Your task to perform on an android device: add a contact in the contacts app Image 0: 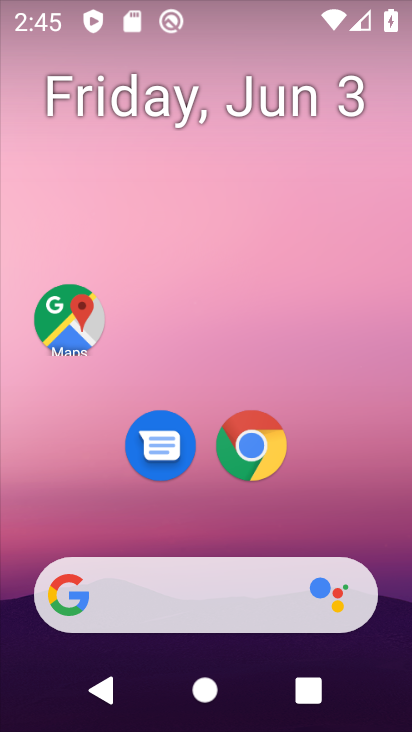
Step 0: drag from (133, 515) to (245, 100)
Your task to perform on an android device: add a contact in the contacts app Image 1: 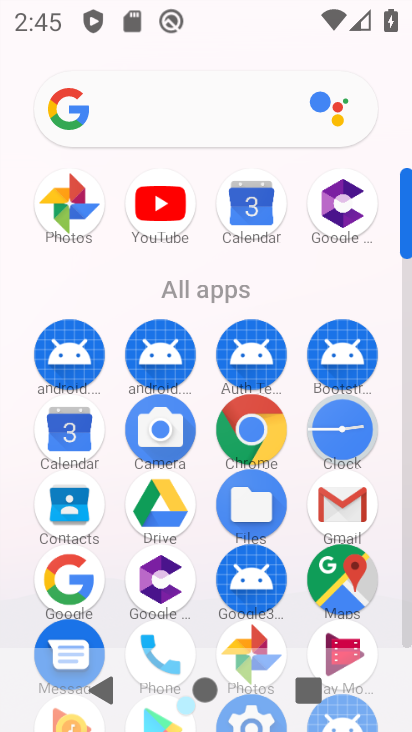
Step 1: drag from (184, 536) to (247, 376)
Your task to perform on an android device: add a contact in the contacts app Image 2: 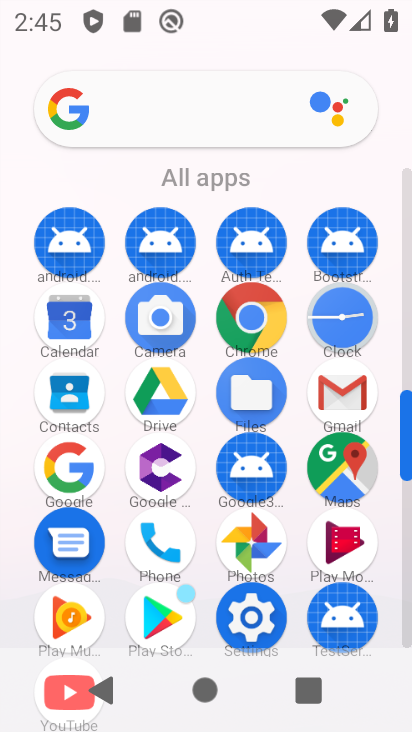
Step 2: click (67, 409)
Your task to perform on an android device: add a contact in the contacts app Image 3: 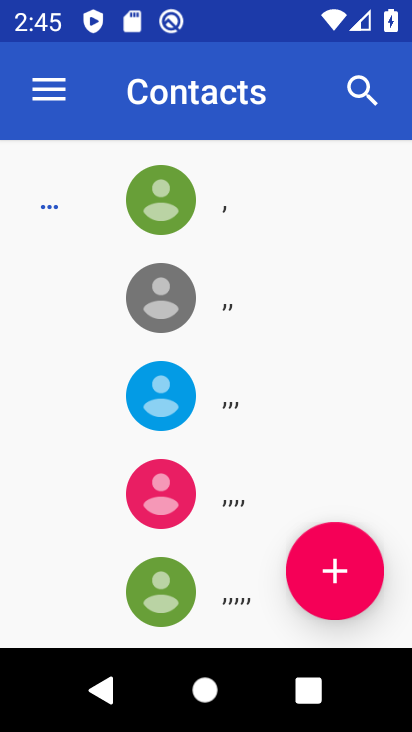
Step 3: click (337, 574)
Your task to perform on an android device: add a contact in the contacts app Image 4: 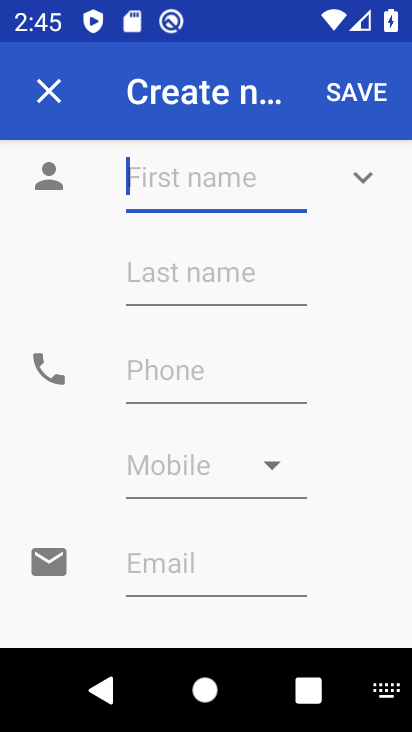
Step 4: type "roko "
Your task to perform on an android device: add a contact in the contacts app Image 5: 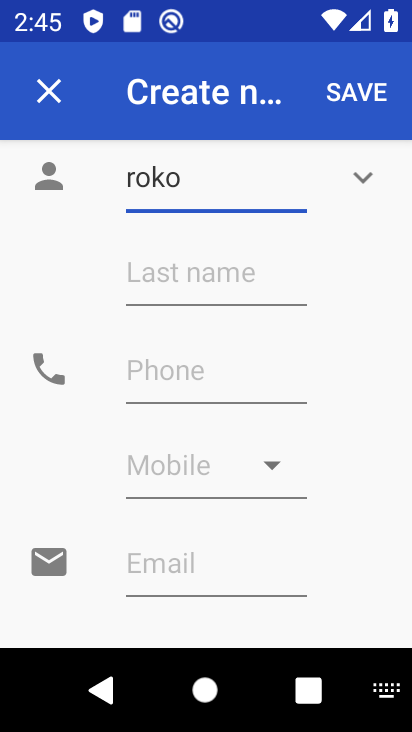
Step 5: click (215, 386)
Your task to perform on an android device: add a contact in the contacts app Image 6: 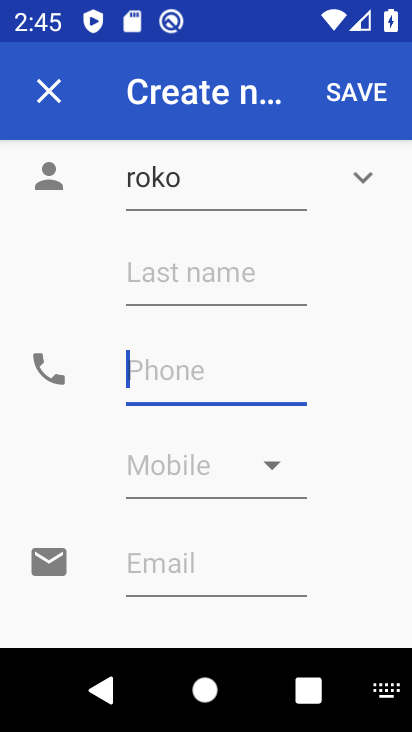
Step 6: type "899988454"
Your task to perform on an android device: add a contact in the contacts app Image 7: 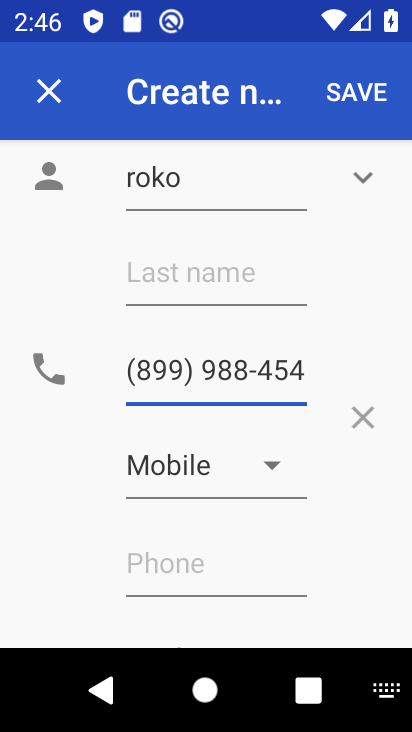
Step 7: click (383, 86)
Your task to perform on an android device: add a contact in the contacts app Image 8: 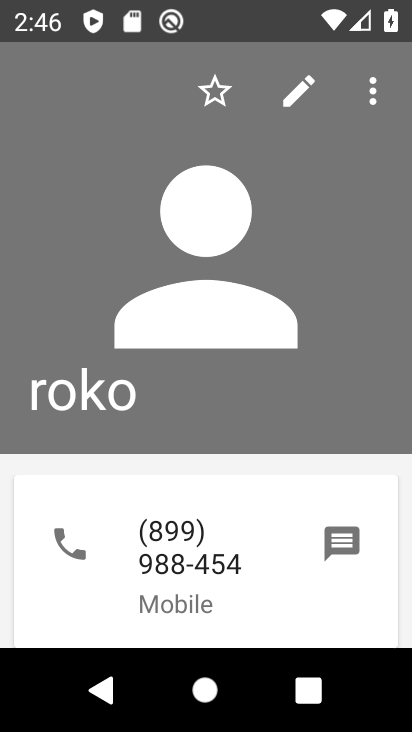
Step 8: task complete